Your task to perform on an android device: turn off sleep mode Image 0: 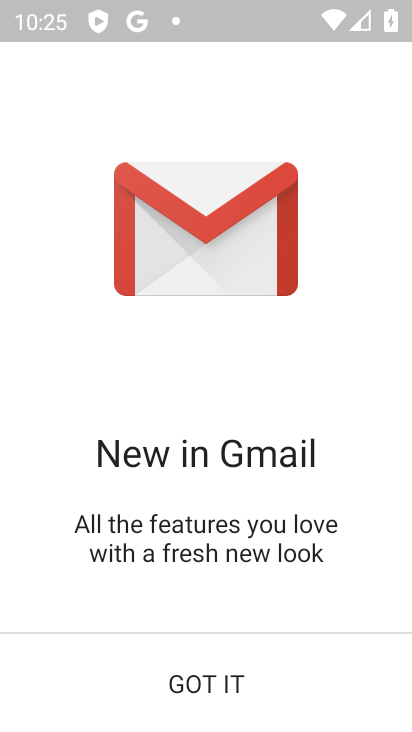
Step 0: press home button
Your task to perform on an android device: turn off sleep mode Image 1: 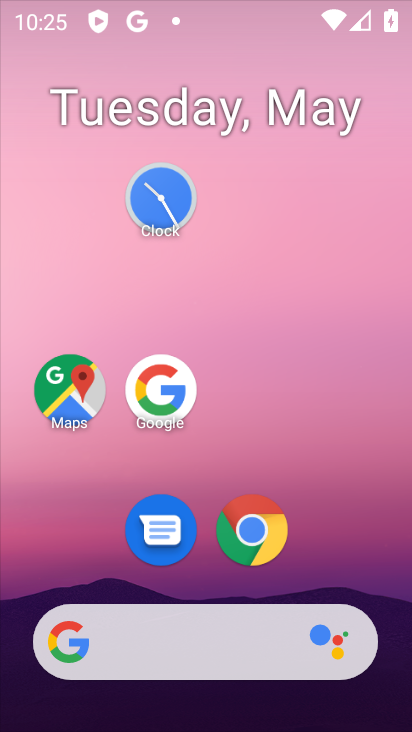
Step 1: drag from (335, 408) to (332, 119)
Your task to perform on an android device: turn off sleep mode Image 2: 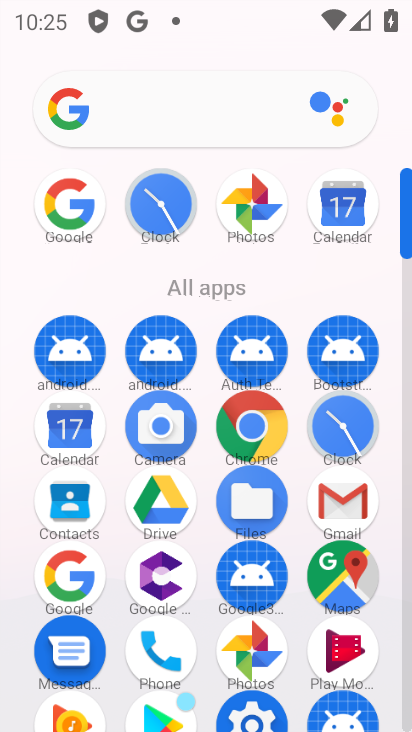
Step 2: drag from (269, 565) to (320, 207)
Your task to perform on an android device: turn off sleep mode Image 3: 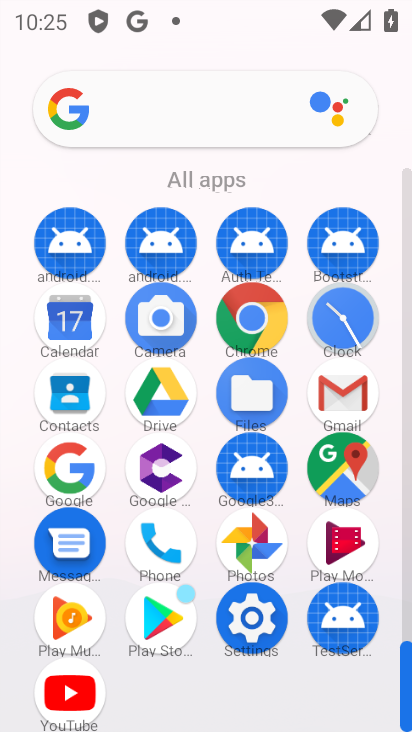
Step 3: drag from (256, 610) to (119, 262)
Your task to perform on an android device: turn off sleep mode Image 4: 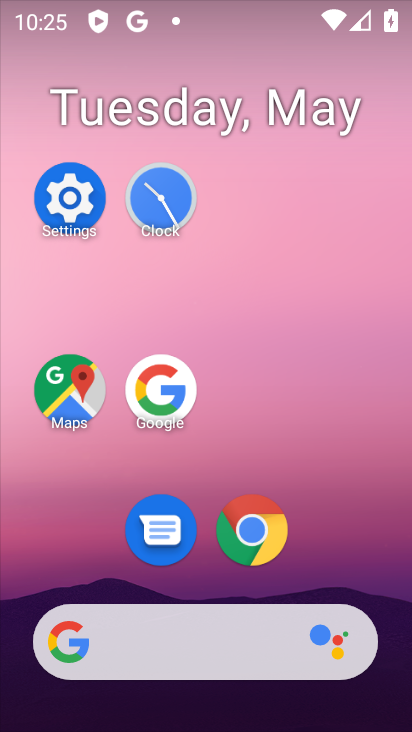
Step 4: click (70, 191)
Your task to perform on an android device: turn off sleep mode Image 5: 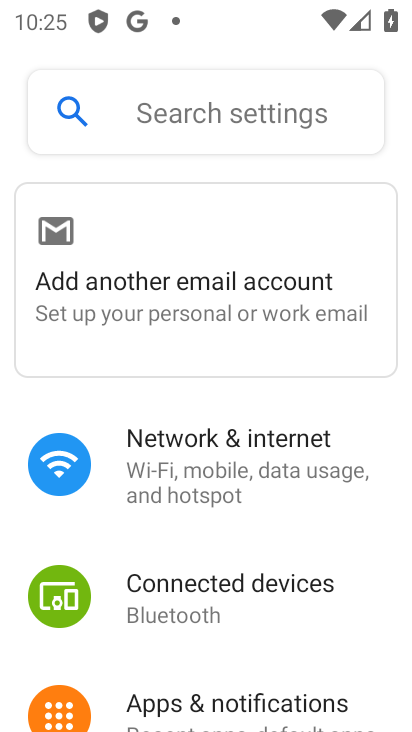
Step 5: drag from (227, 606) to (214, 196)
Your task to perform on an android device: turn off sleep mode Image 6: 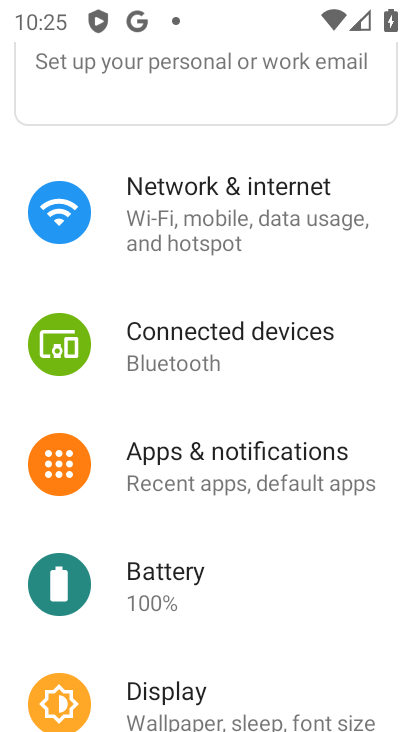
Step 6: drag from (225, 642) to (265, 239)
Your task to perform on an android device: turn off sleep mode Image 7: 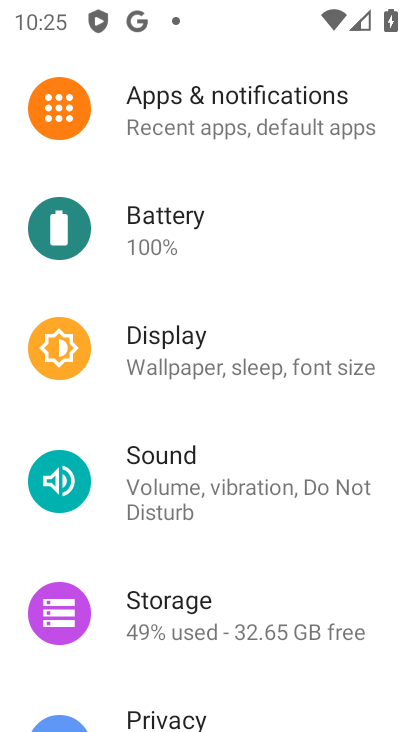
Step 7: click (253, 350)
Your task to perform on an android device: turn off sleep mode Image 8: 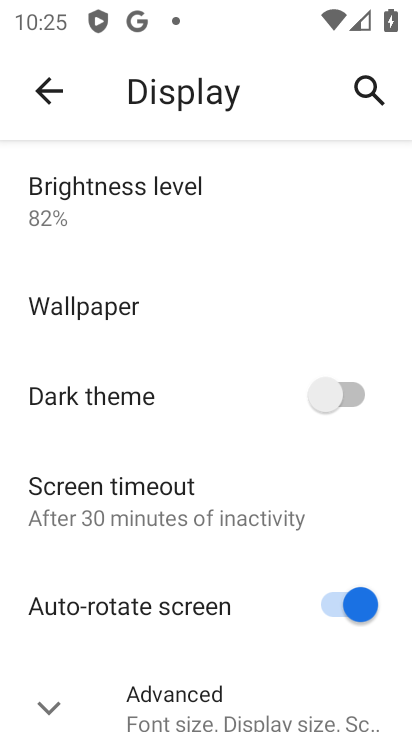
Step 8: click (199, 490)
Your task to perform on an android device: turn off sleep mode Image 9: 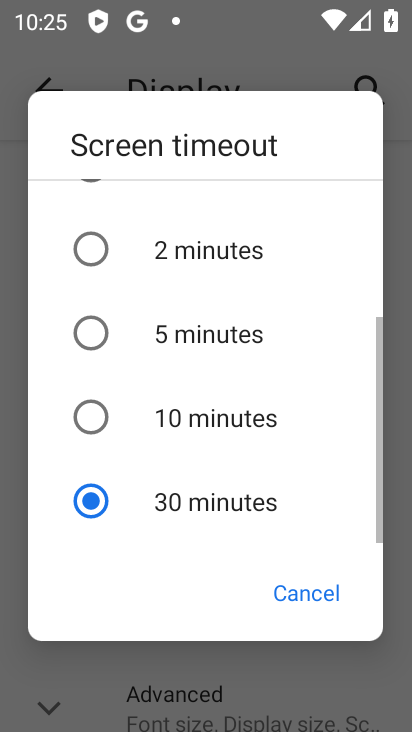
Step 9: task complete